Your task to perform on an android device: change notifications settings Image 0: 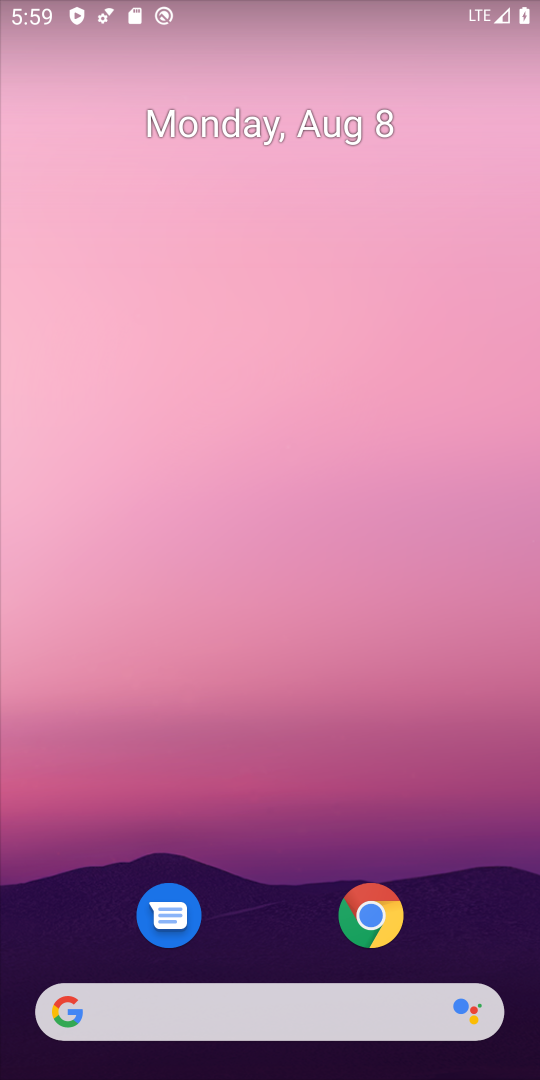
Step 0: drag from (303, 837) to (233, 308)
Your task to perform on an android device: change notifications settings Image 1: 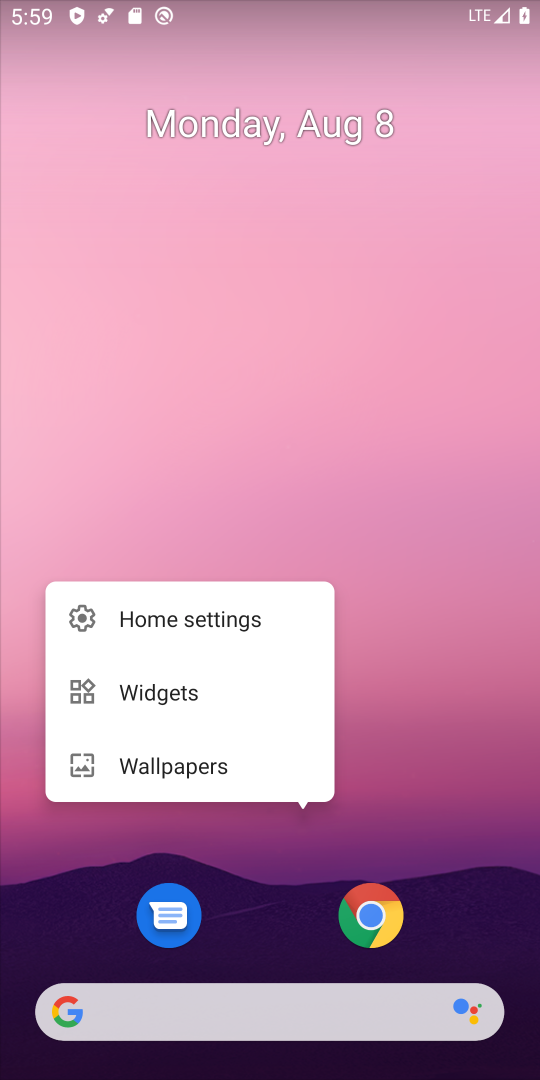
Step 1: click (456, 699)
Your task to perform on an android device: change notifications settings Image 2: 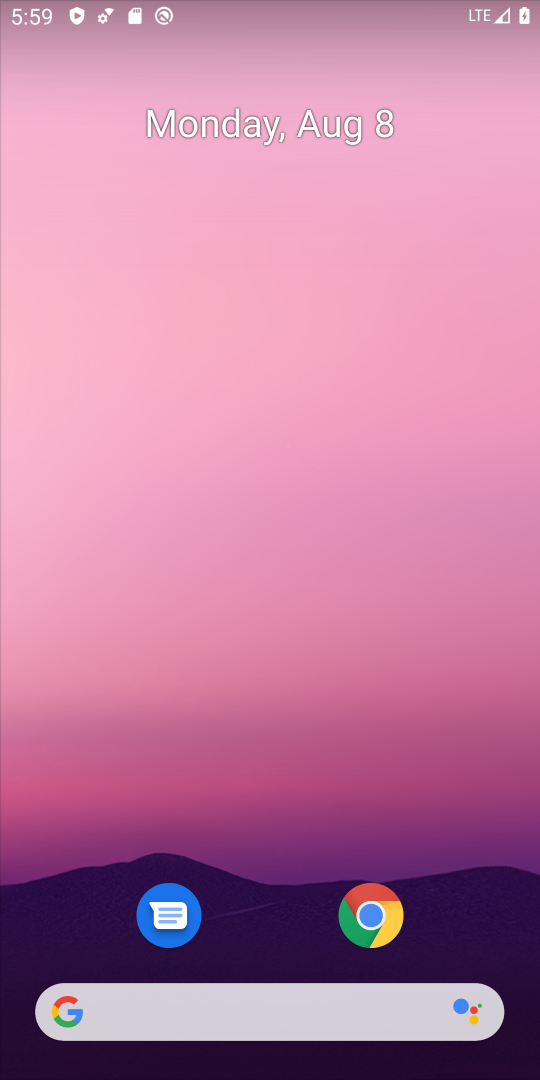
Step 2: drag from (318, 774) to (246, 38)
Your task to perform on an android device: change notifications settings Image 3: 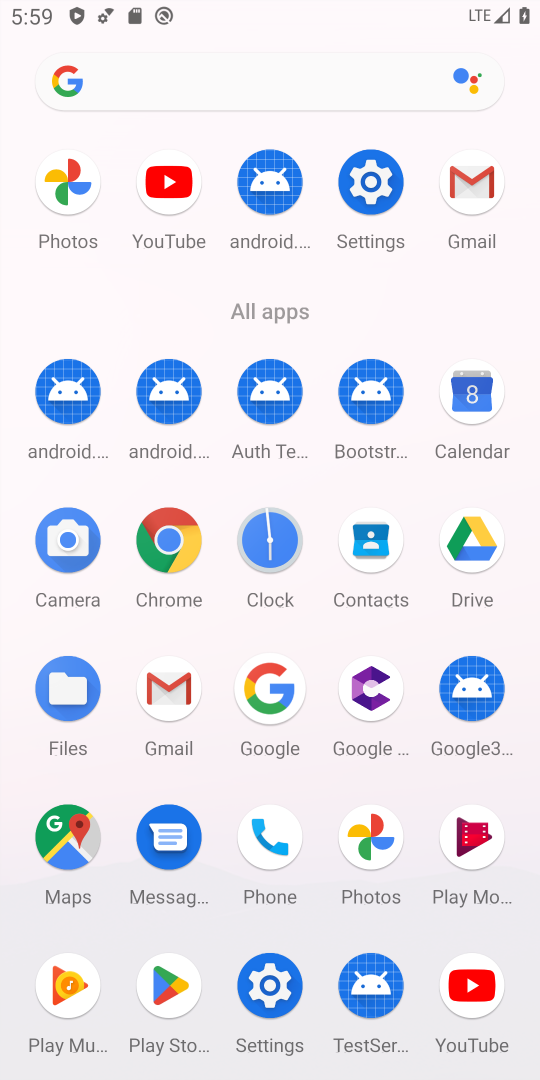
Step 3: click (371, 182)
Your task to perform on an android device: change notifications settings Image 4: 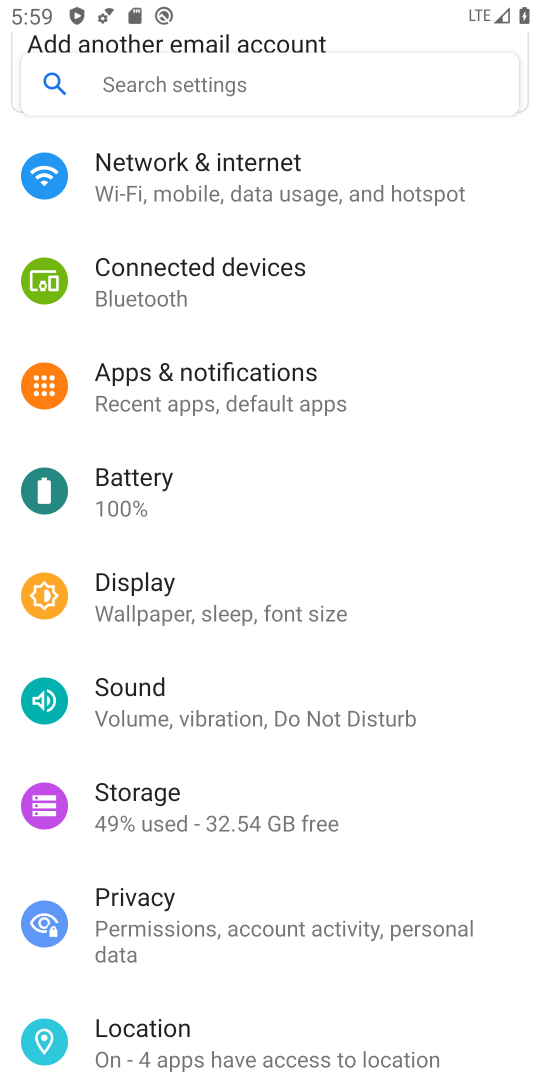
Step 4: click (210, 371)
Your task to perform on an android device: change notifications settings Image 5: 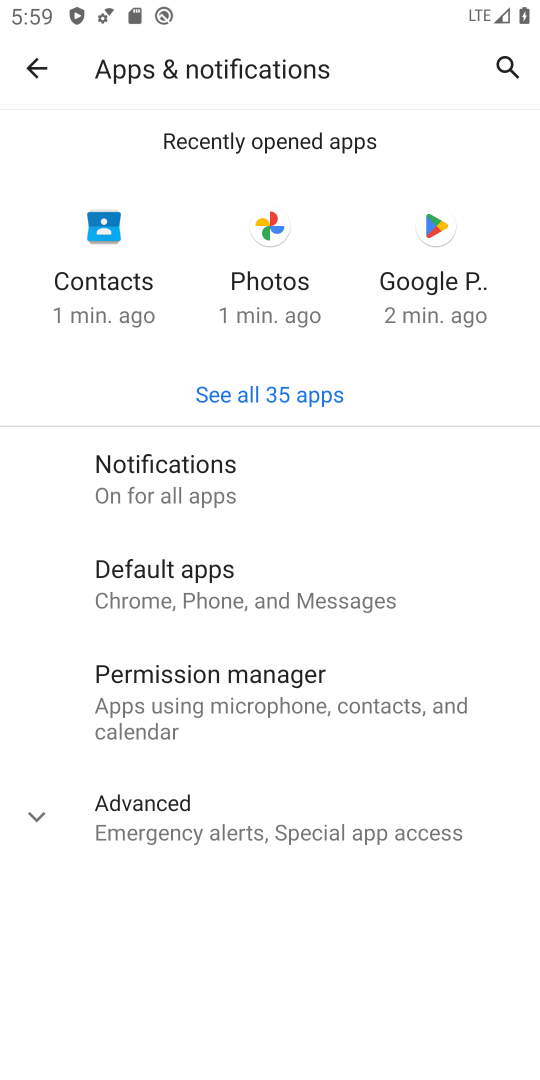
Step 5: click (206, 460)
Your task to perform on an android device: change notifications settings Image 6: 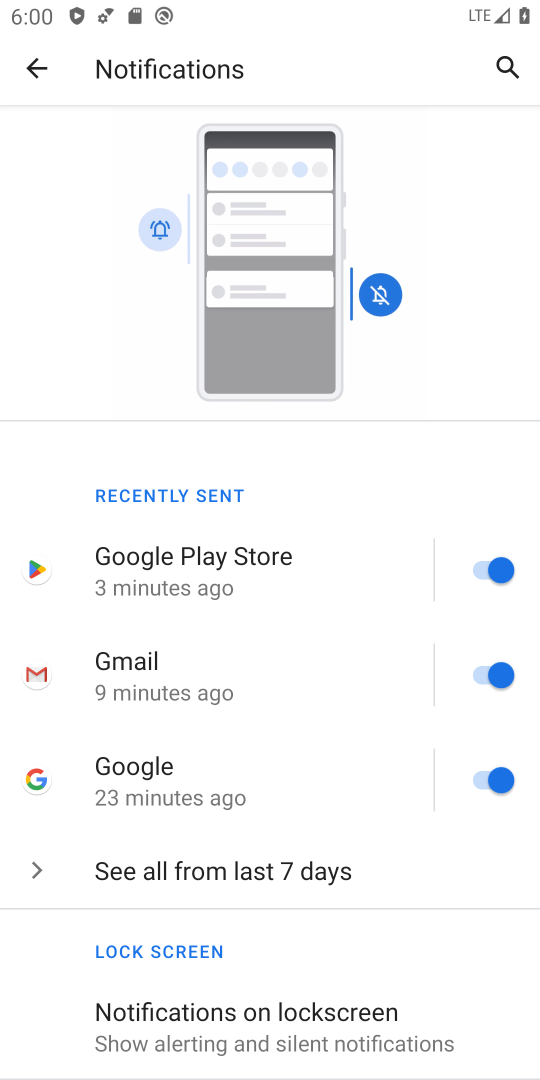
Step 6: click (188, 870)
Your task to perform on an android device: change notifications settings Image 7: 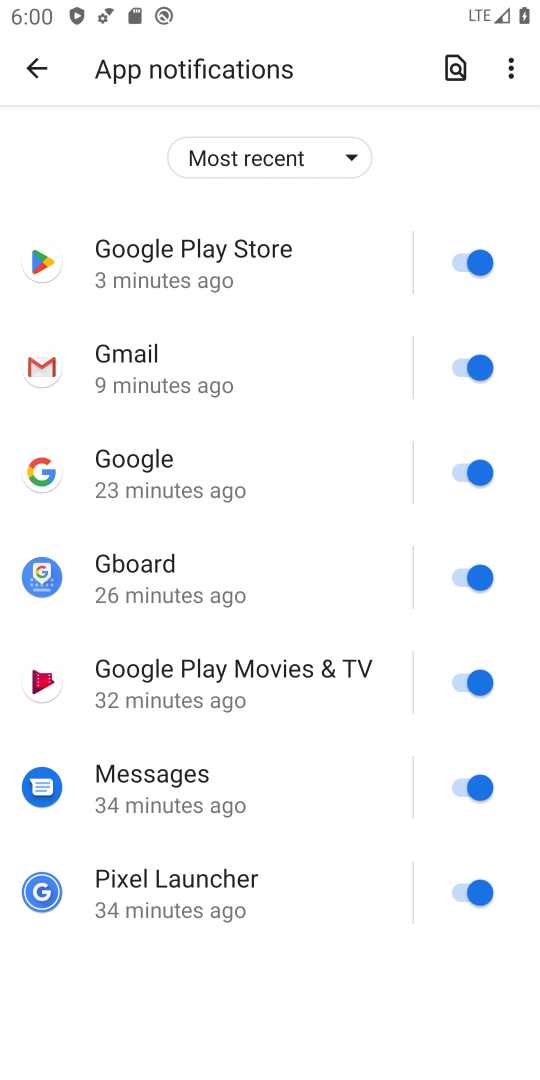
Step 7: click (346, 159)
Your task to perform on an android device: change notifications settings Image 8: 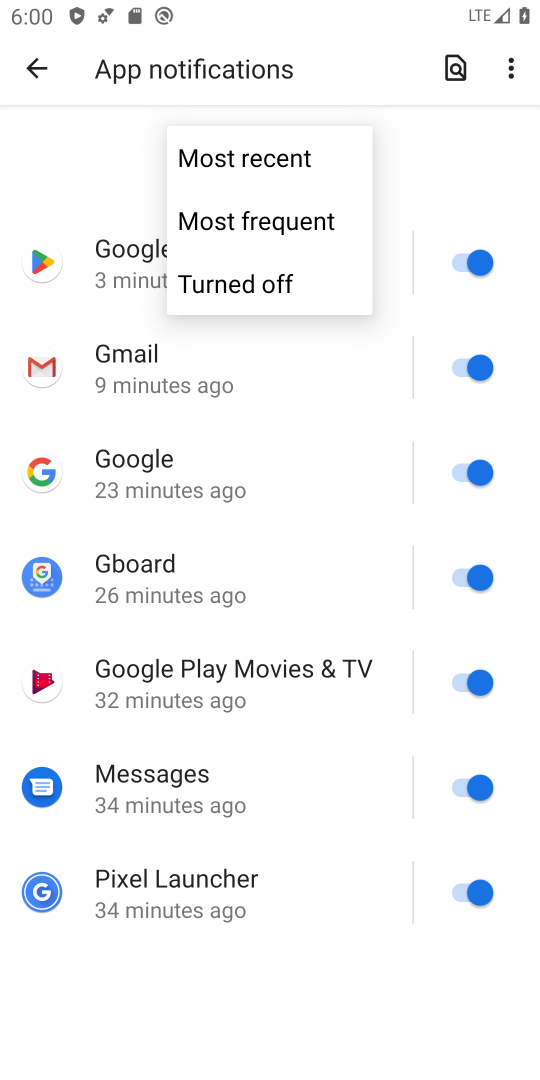
Step 8: click (227, 277)
Your task to perform on an android device: change notifications settings Image 9: 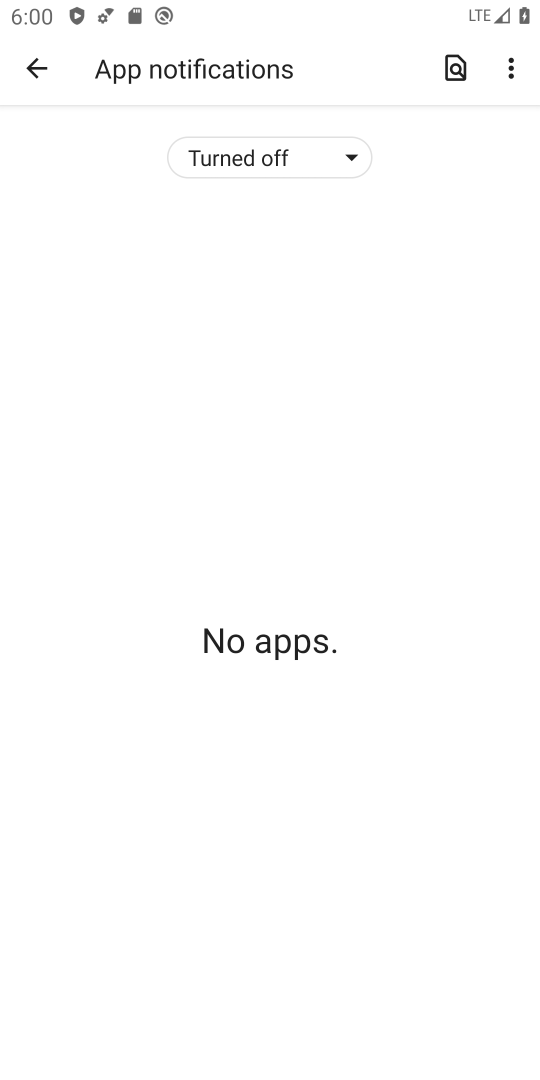
Step 9: task complete